Your task to perform on an android device: set the stopwatch Image 0: 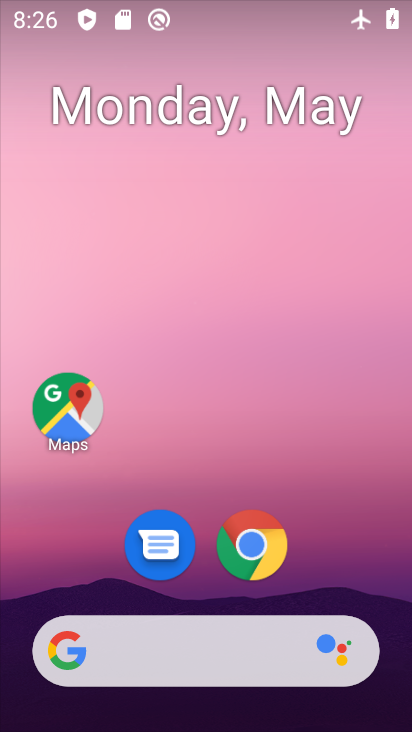
Step 0: drag from (196, 601) to (292, 25)
Your task to perform on an android device: set the stopwatch Image 1: 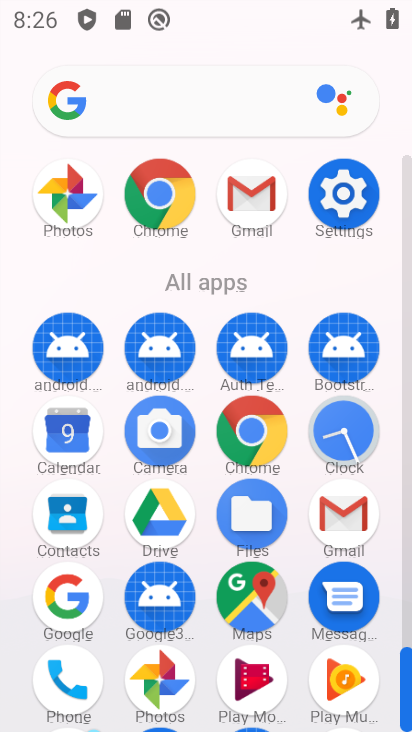
Step 1: click (338, 415)
Your task to perform on an android device: set the stopwatch Image 2: 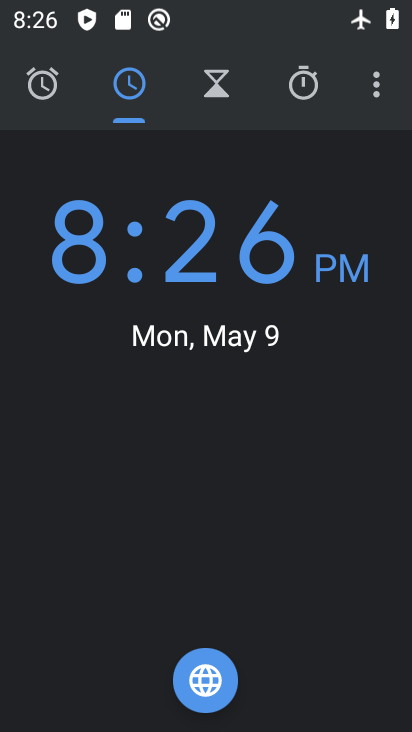
Step 2: click (309, 88)
Your task to perform on an android device: set the stopwatch Image 3: 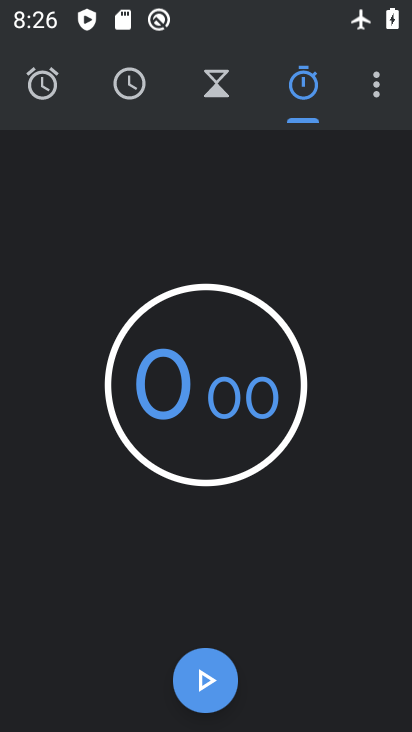
Step 3: click (214, 667)
Your task to perform on an android device: set the stopwatch Image 4: 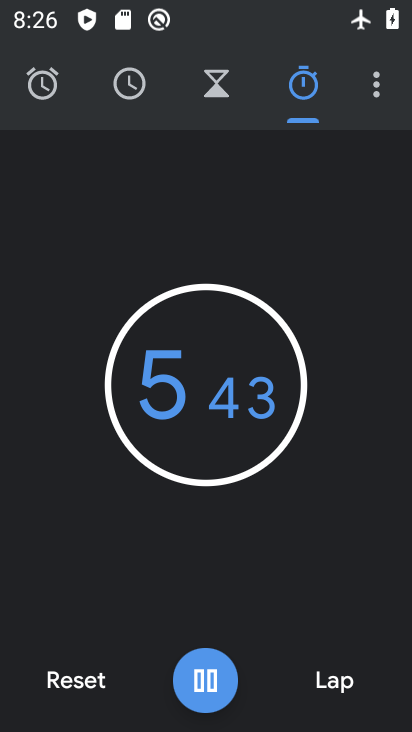
Step 4: task complete